Your task to perform on an android device: Go to Maps Image 0: 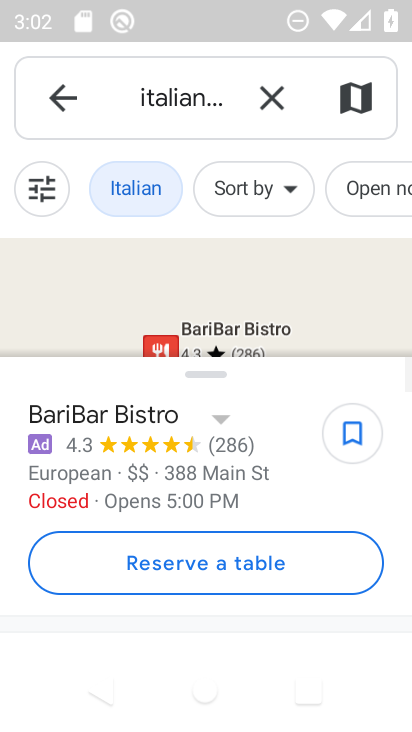
Step 0: task complete